Your task to perform on an android device: uninstall "Google Sheets" Image 0: 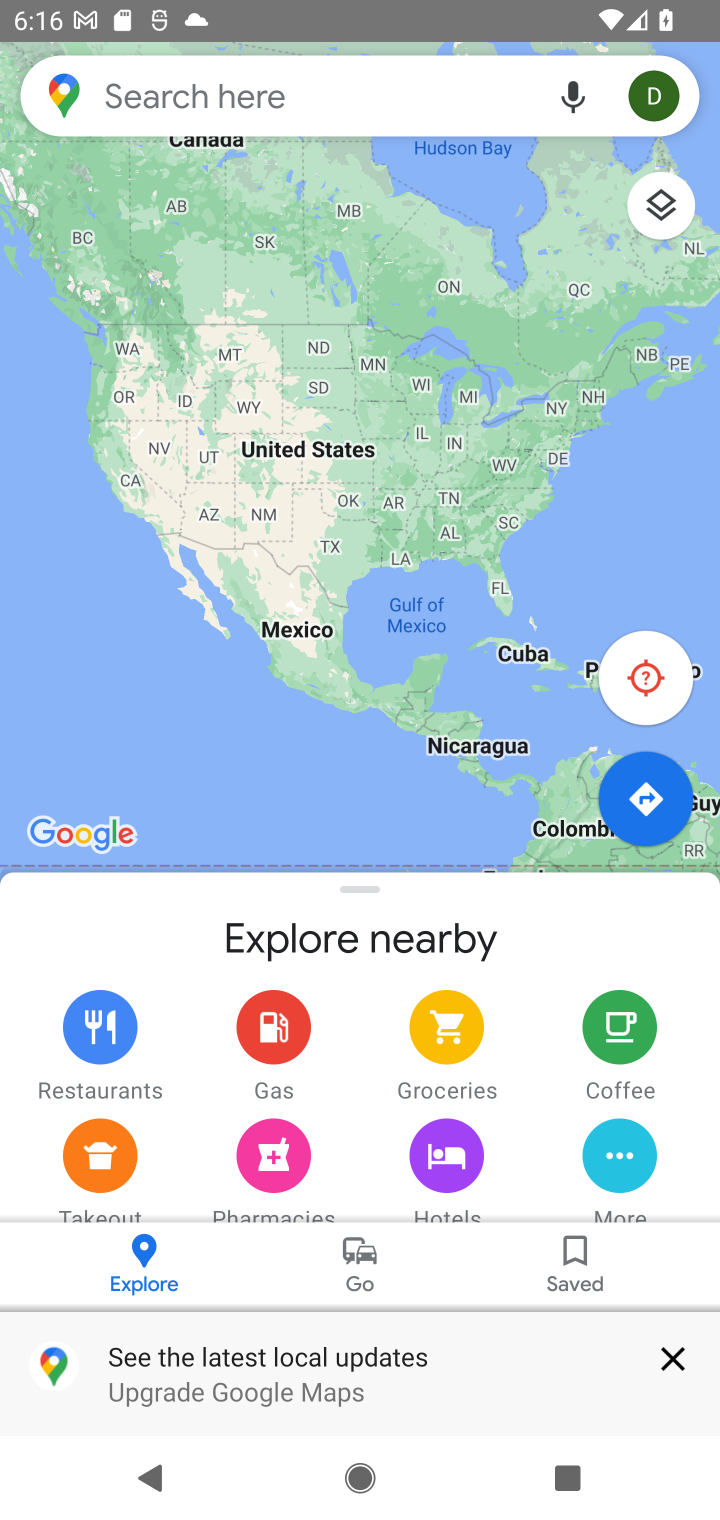
Step 0: press home button
Your task to perform on an android device: uninstall "Google Sheets" Image 1: 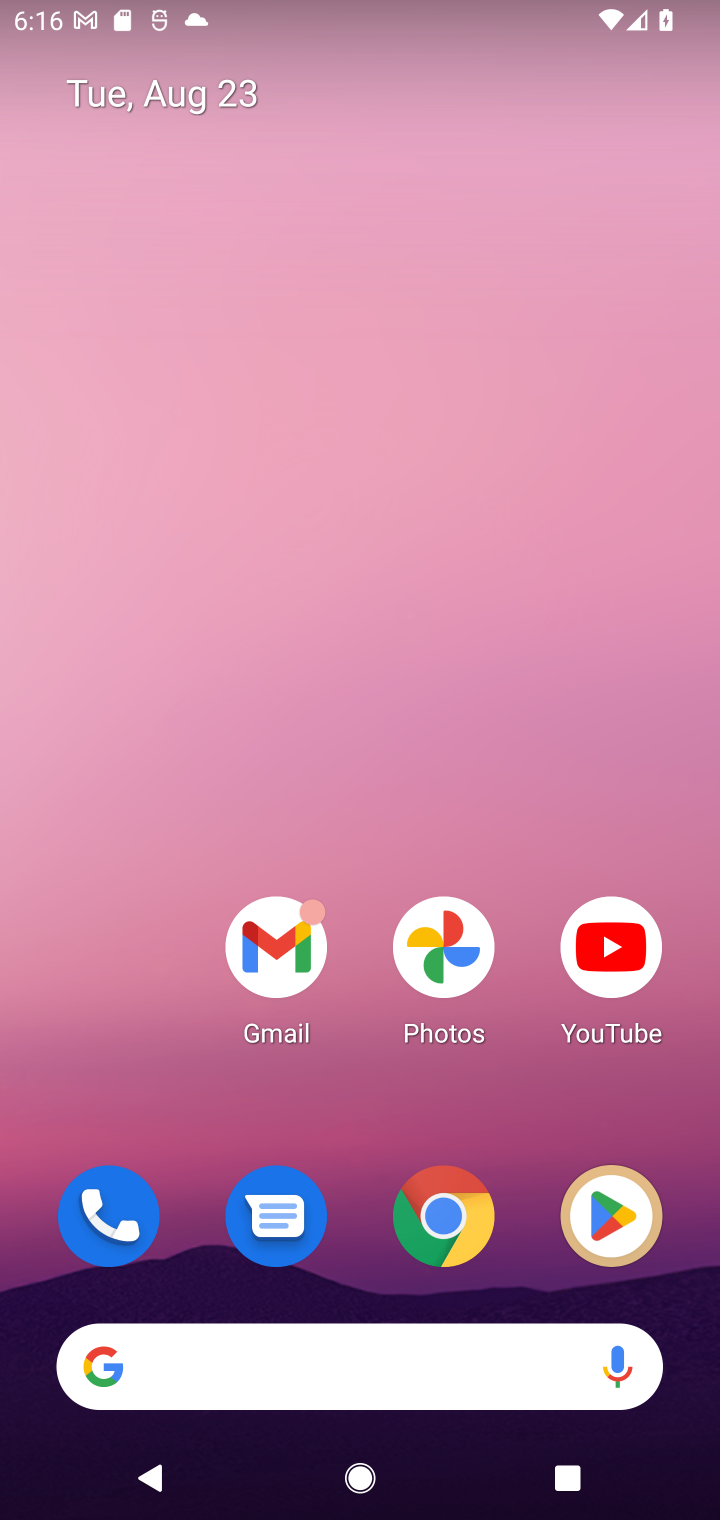
Step 1: drag from (351, 958) to (351, 468)
Your task to perform on an android device: uninstall "Google Sheets" Image 2: 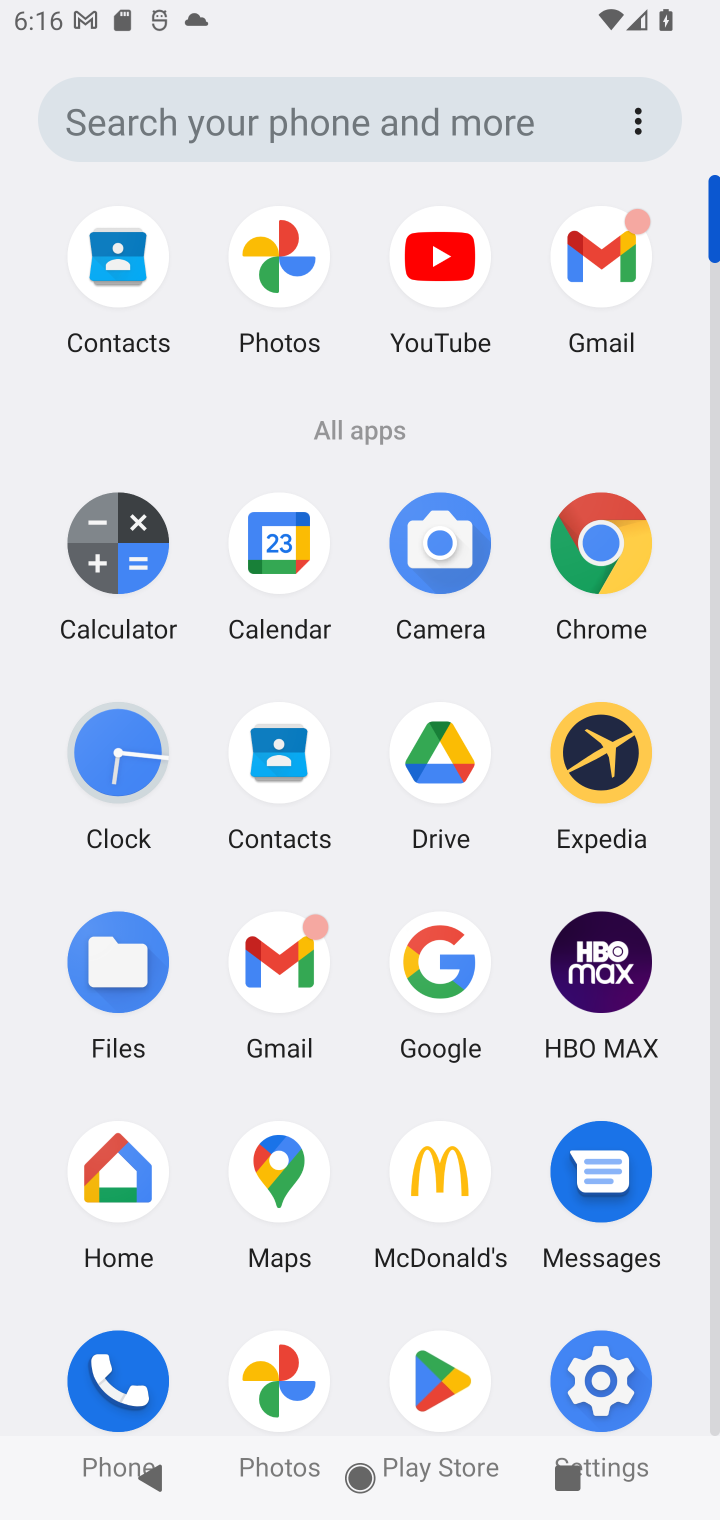
Step 2: click (432, 1357)
Your task to perform on an android device: uninstall "Google Sheets" Image 3: 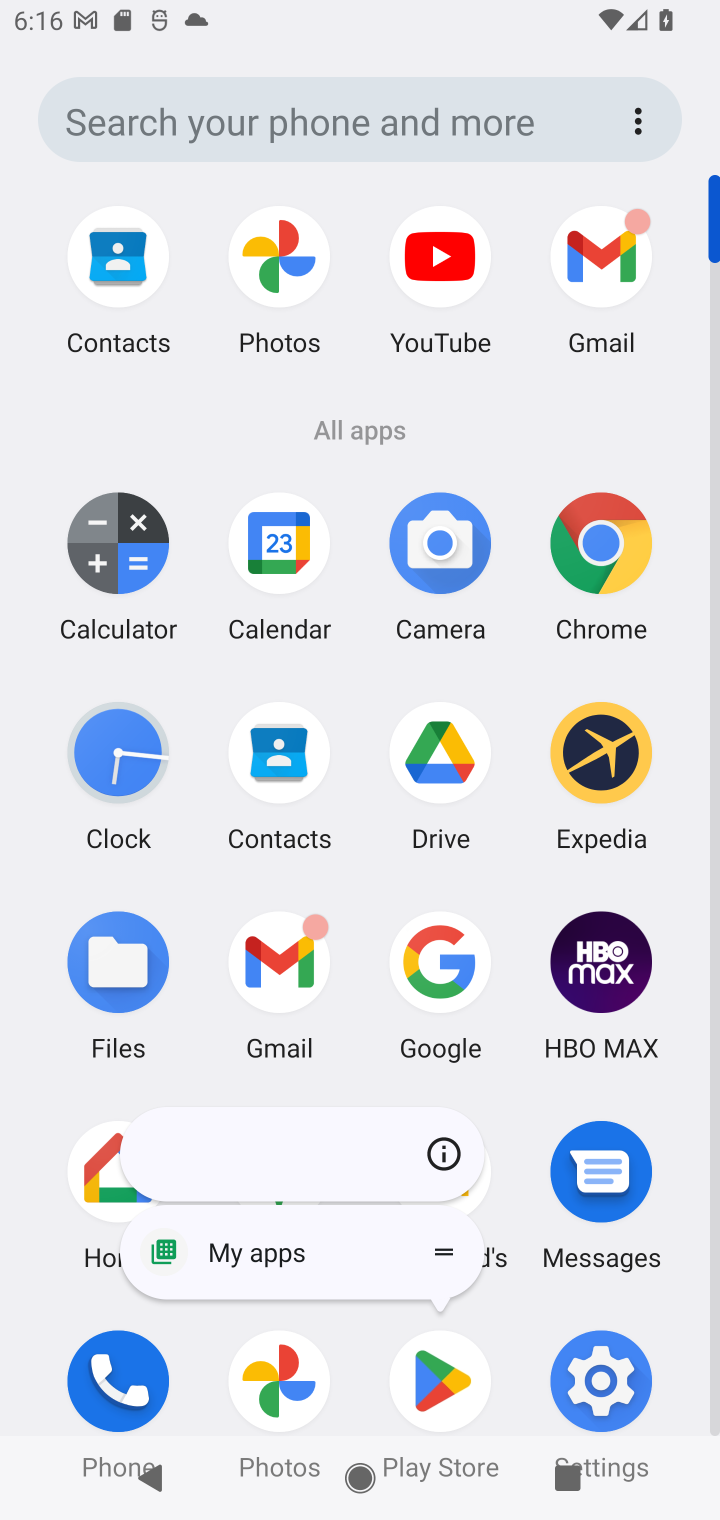
Step 3: click (342, 112)
Your task to perform on an android device: uninstall "Google Sheets" Image 4: 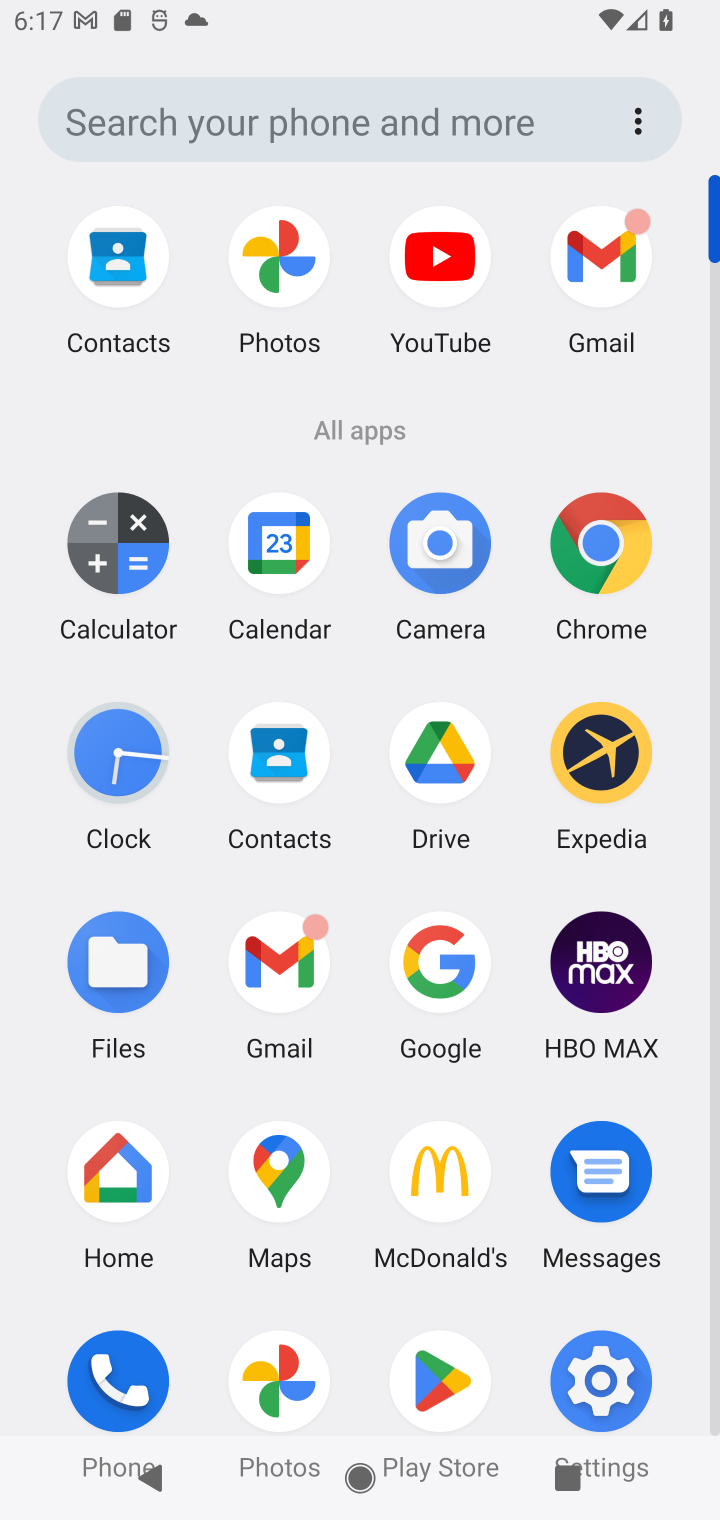
Step 4: click (441, 1380)
Your task to perform on an android device: uninstall "Google Sheets" Image 5: 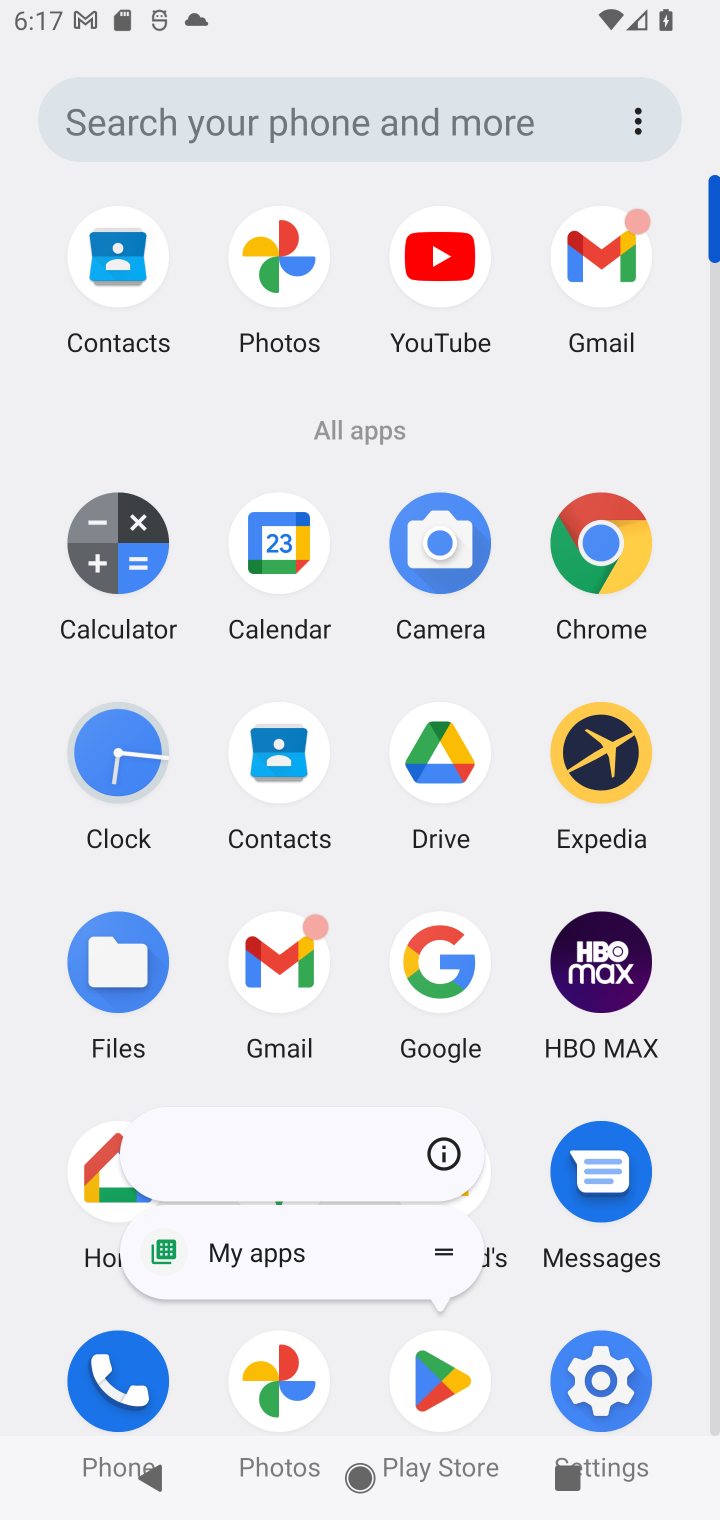
Step 5: click (441, 1380)
Your task to perform on an android device: uninstall "Google Sheets" Image 6: 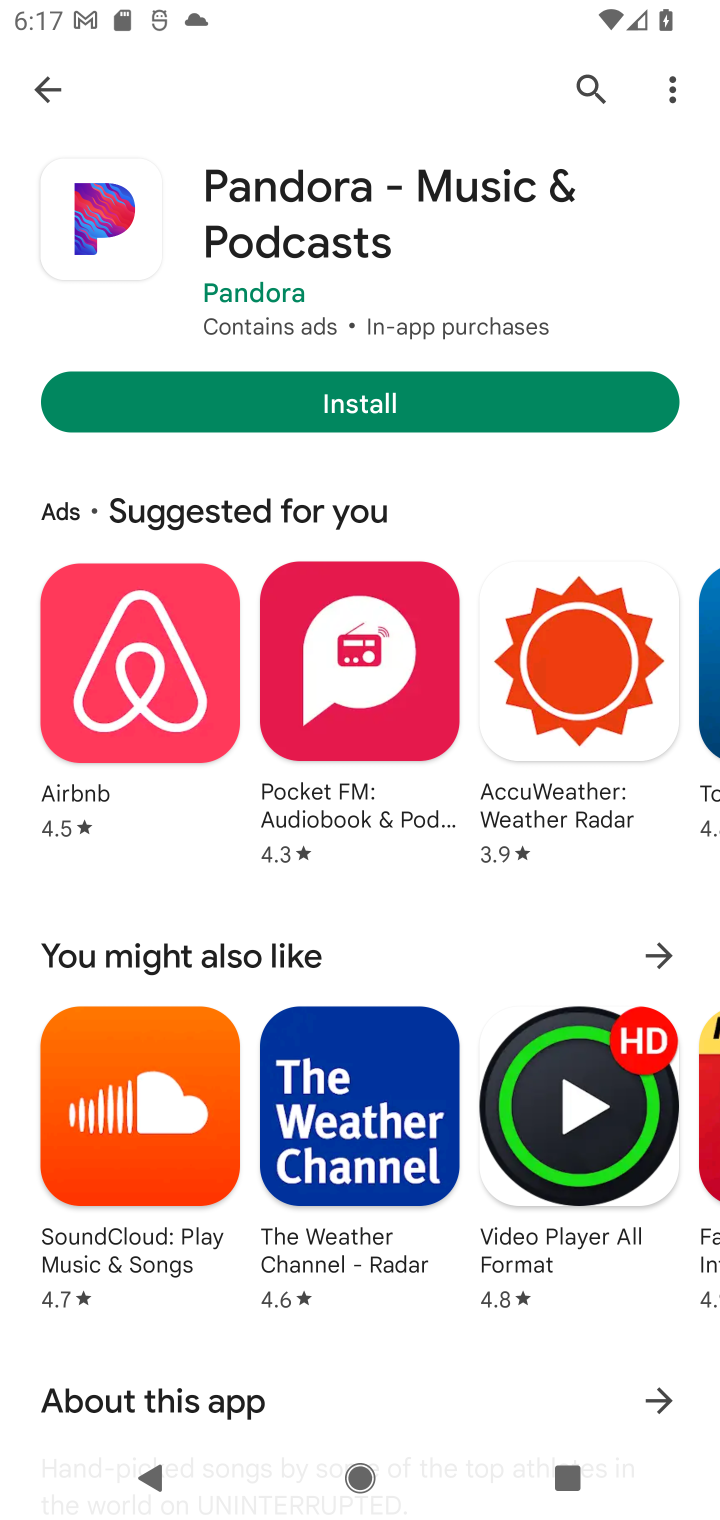
Step 6: click (567, 91)
Your task to perform on an android device: uninstall "Google Sheets" Image 7: 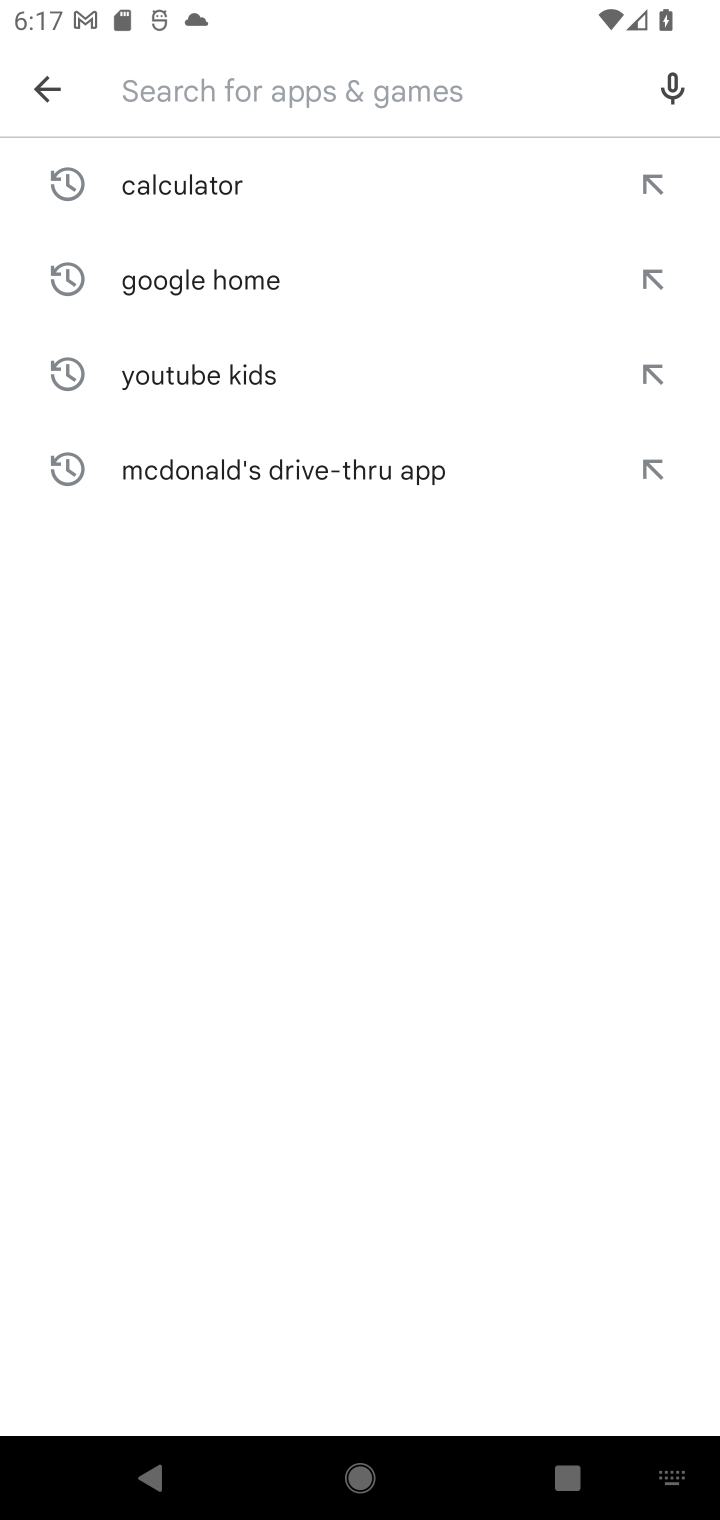
Step 7: type "Google Sheets"
Your task to perform on an android device: uninstall "Google Sheets" Image 8: 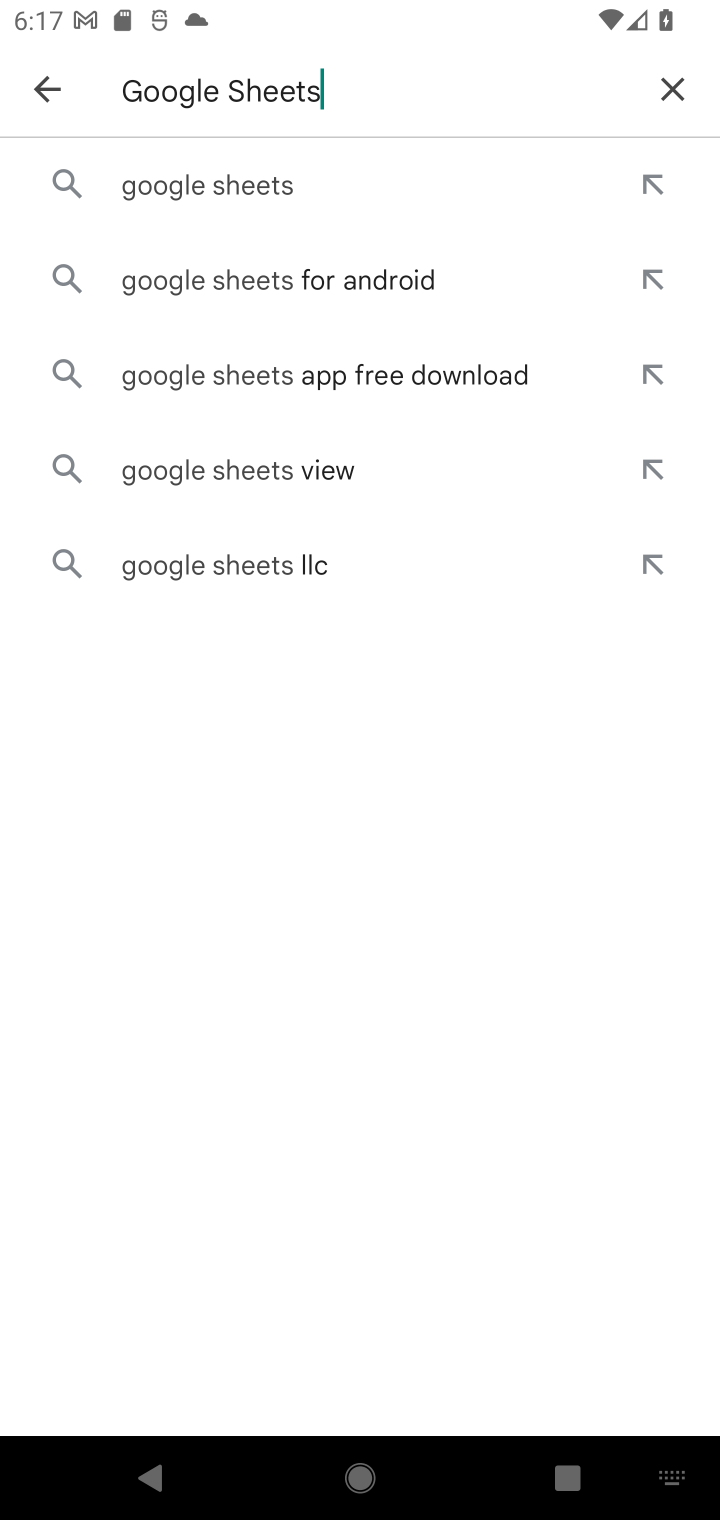
Step 8: click (188, 198)
Your task to perform on an android device: uninstall "Google Sheets" Image 9: 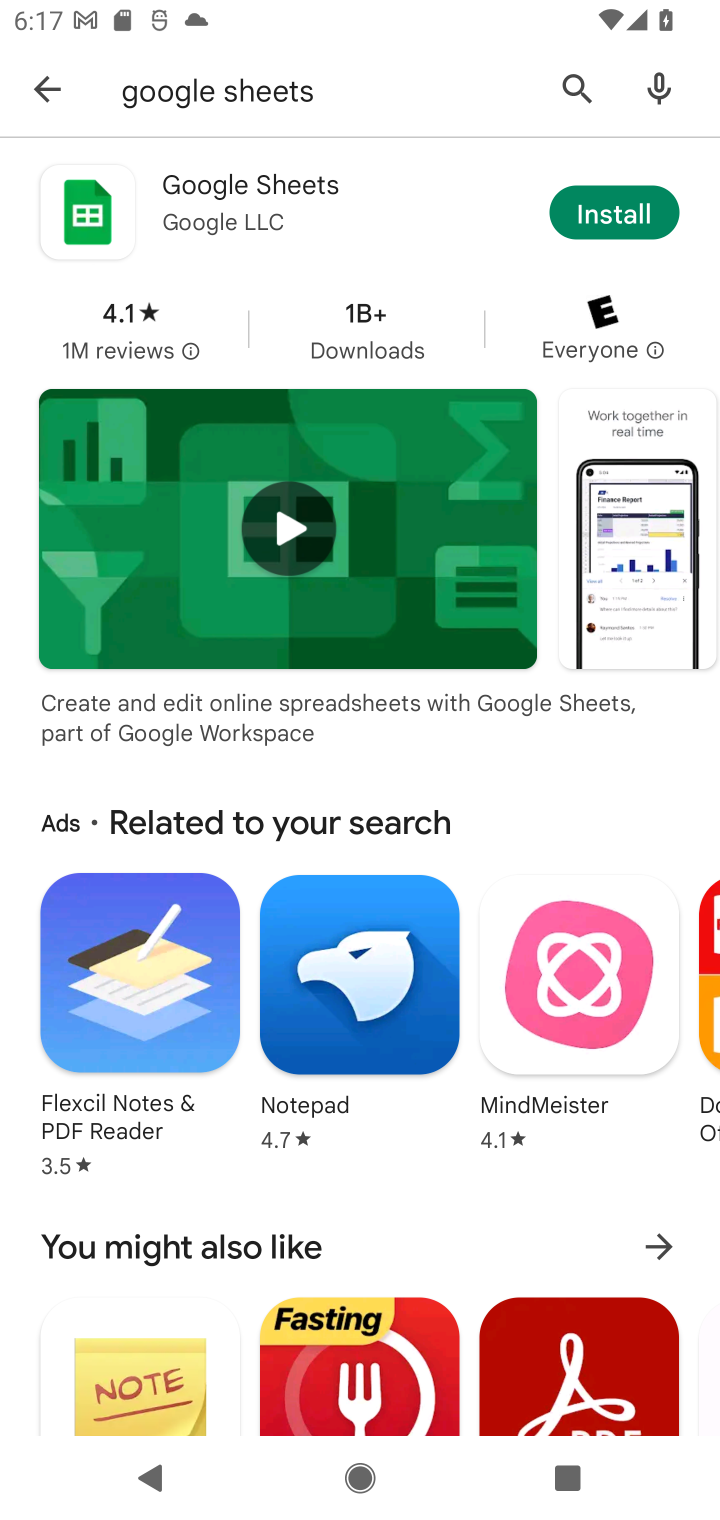
Step 9: task complete